Your task to perform on an android device: toggle notification dots Image 0: 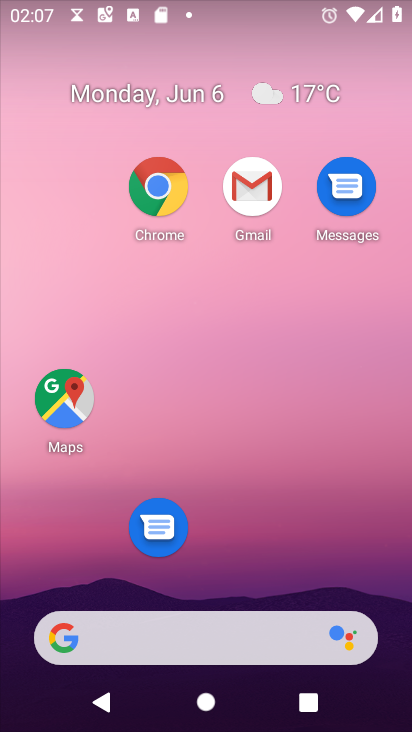
Step 0: drag from (291, 552) to (158, 114)
Your task to perform on an android device: toggle notification dots Image 1: 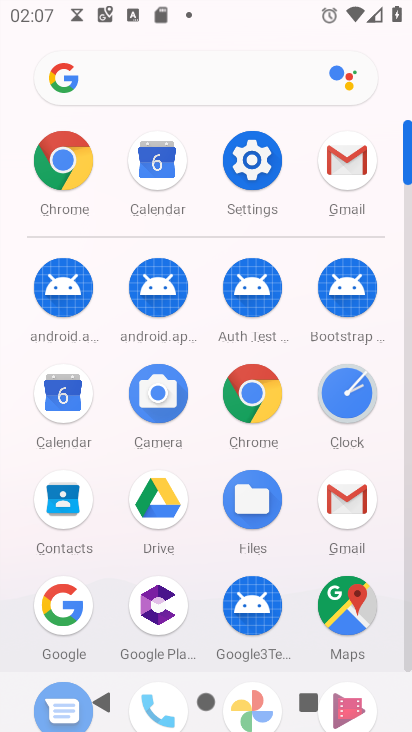
Step 1: click (249, 166)
Your task to perform on an android device: toggle notification dots Image 2: 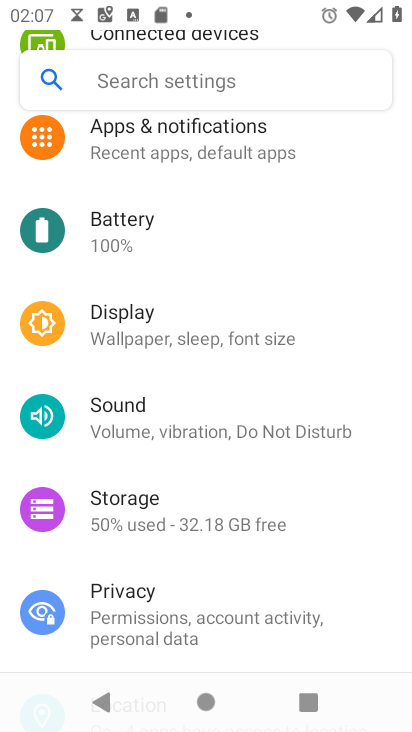
Step 2: click (216, 147)
Your task to perform on an android device: toggle notification dots Image 3: 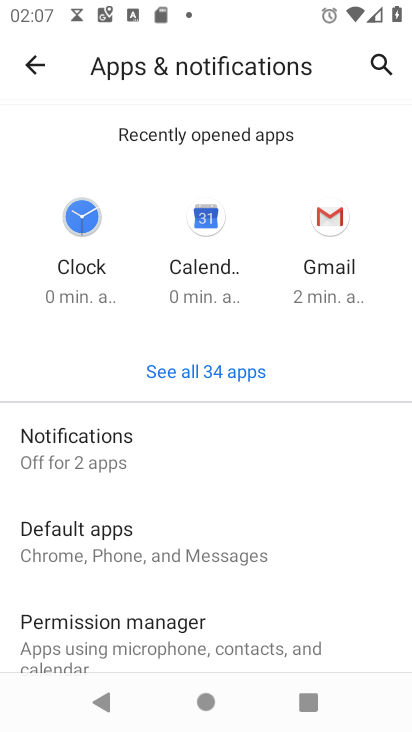
Step 3: drag from (202, 628) to (114, 29)
Your task to perform on an android device: toggle notification dots Image 4: 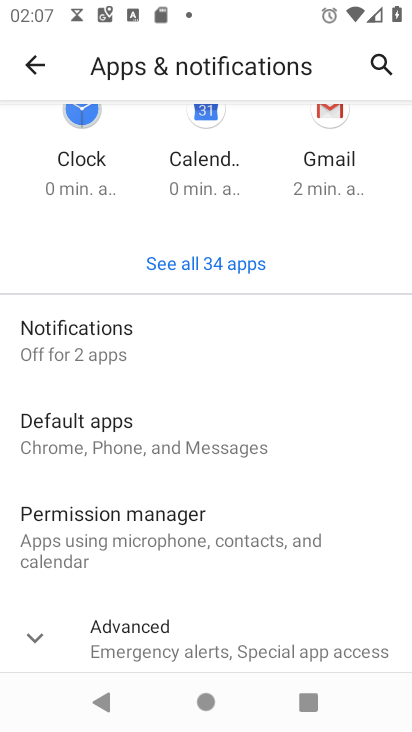
Step 4: click (181, 647)
Your task to perform on an android device: toggle notification dots Image 5: 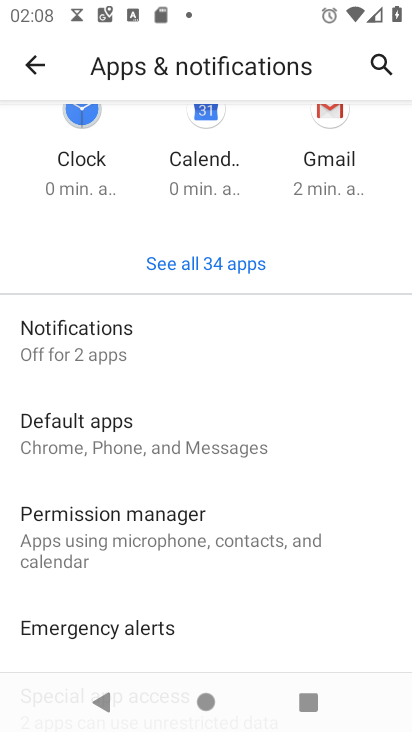
Step 5: drag from (181, 647) to (113, 33)
Your task to perform on an android device: toggle notification dots Image 6: 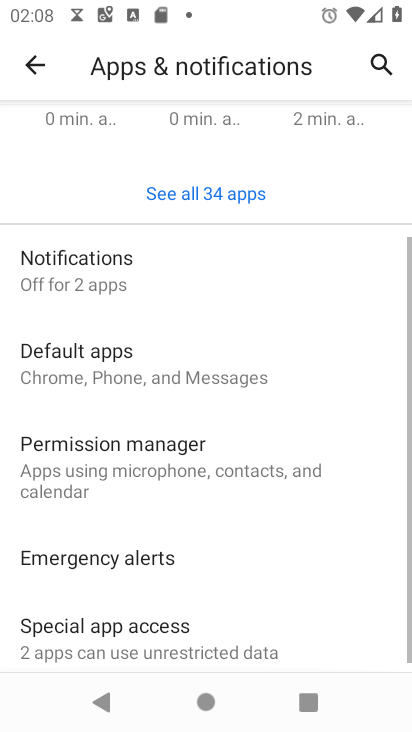
Step 6: click (176, 445)
Your task to perform on an android device: toggle notification dots Image 7: 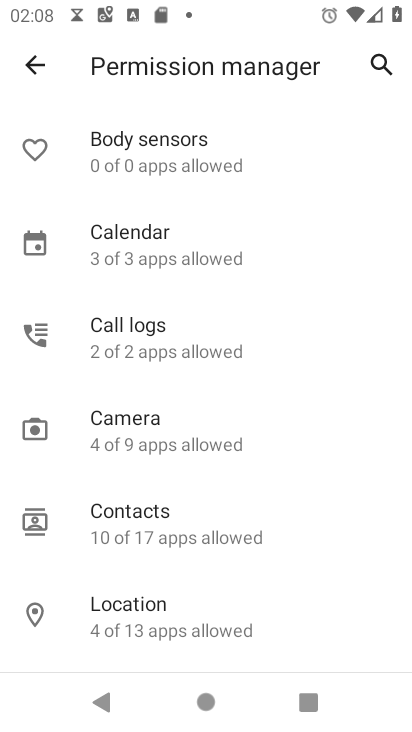
Step 7: click (50, 61)
Your task to perform on an android device: toggle notification dots Image 8: 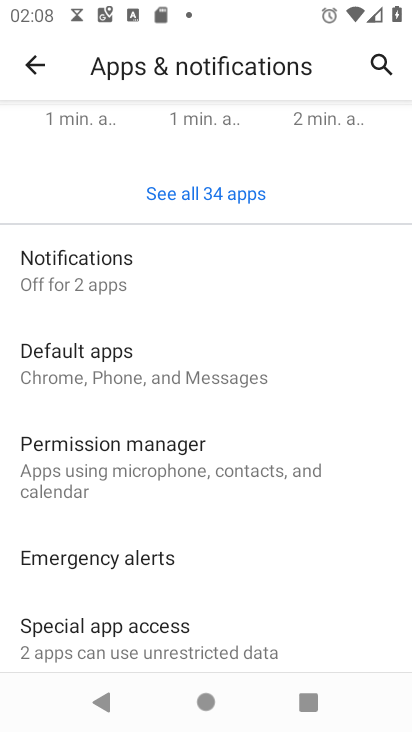
Step 8: drag from (189, 553) to (84, 192)
Your task to perform on an android device: toggle notification dots Image 9: 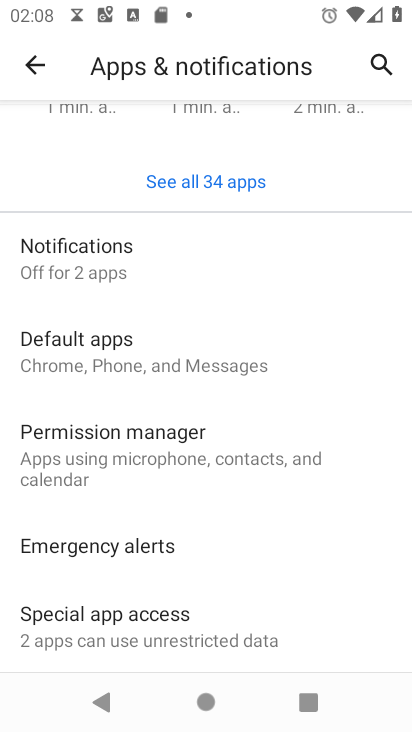
Step 9: click (83, 249)
Your task to perform on an android device: toggle notification dots Image 10: 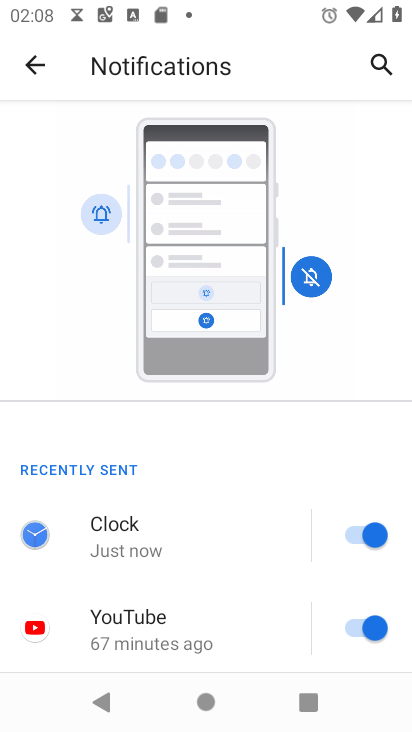
Step 10: drag from (185, 479) to (181, 226)
Your task to perform on an android device: toggle notification dots Image 11: 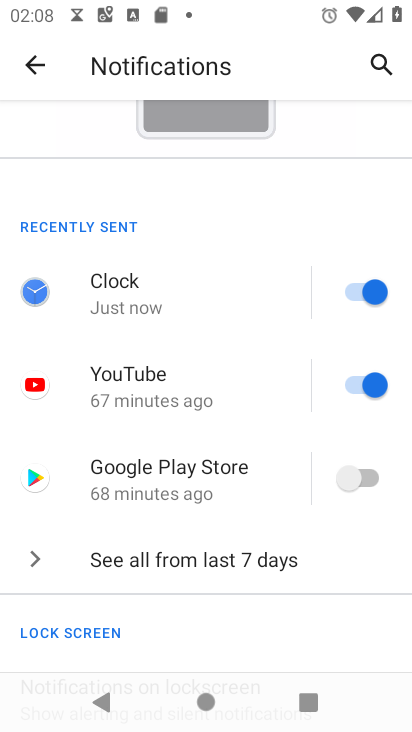
Step 11: drag from (337, 615) to (260, 281)
Your task to perform on an android device: toggle notification dots Image 12: 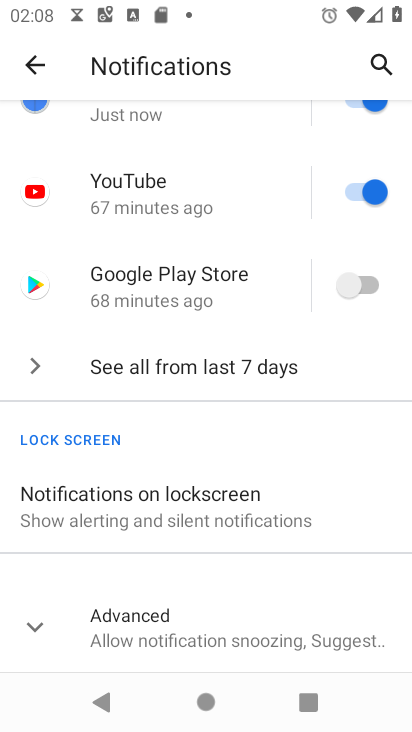
Step 12: click (198, 639)
Your task to perform on an android device: toggle notification dots Image 13: 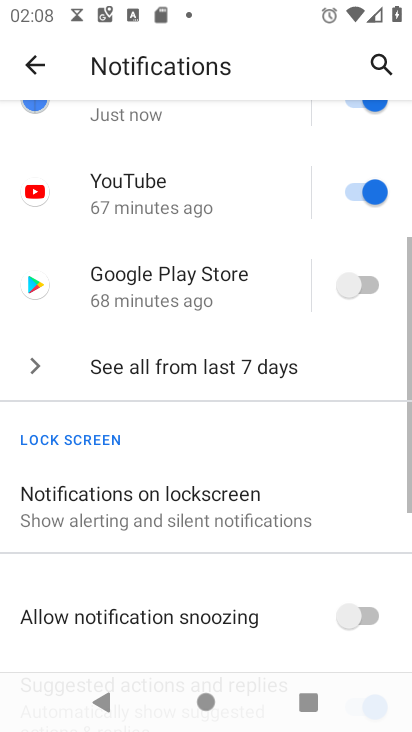
Step 13: drag from (212, 592) to (80, 252)
Your task to perform on an android device: toggle notification dots Image 14: 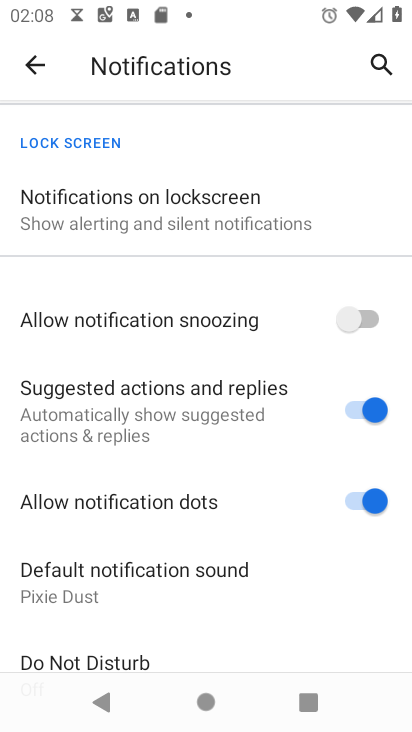
Step 14: click (371, 495)
Your task to perform on an android device: toggle notification dots Image 15: 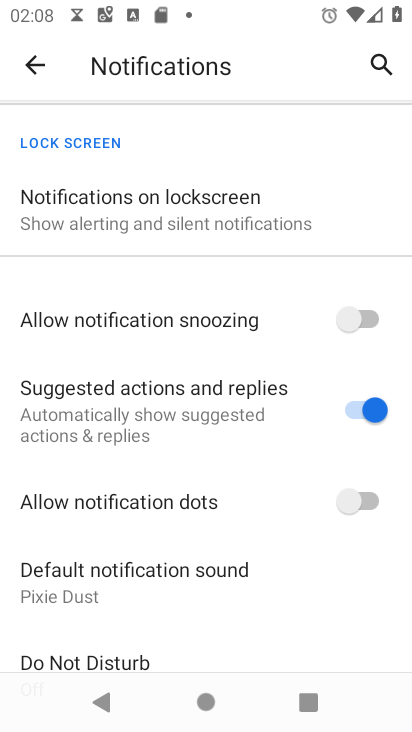
Step 15: task complete